Your task to perform on an android device: open chrome and create a bookmark for the current page Image 0: 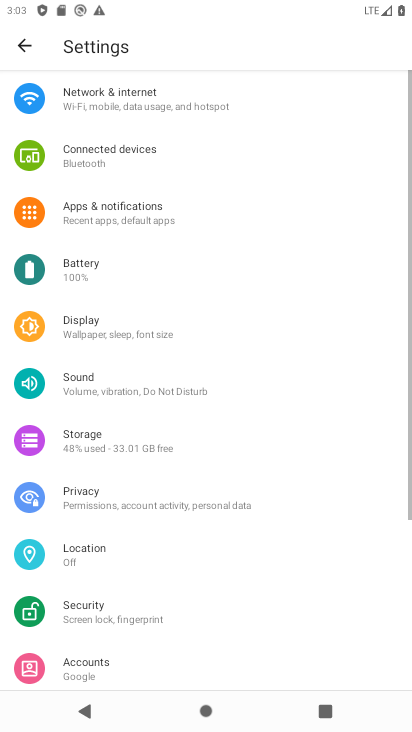
Step 0: press home button
Your task to perform on an android device: open chrome and create a bookmark for the current page Image 1: 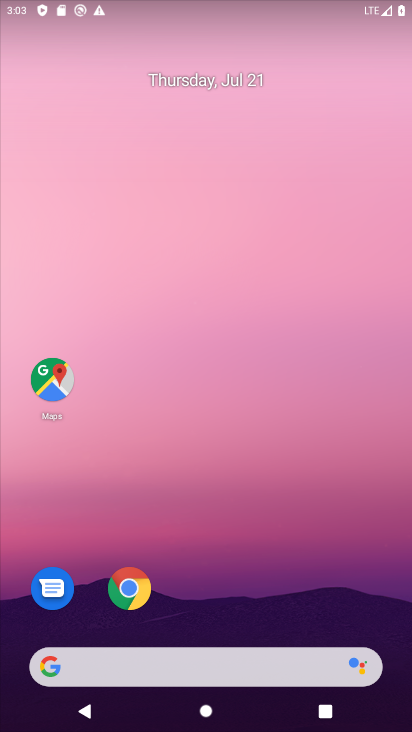
Step 1: click (120, 596)
Your task to perform on an android device: open chrome and create a bookmark for the current page Image 2: 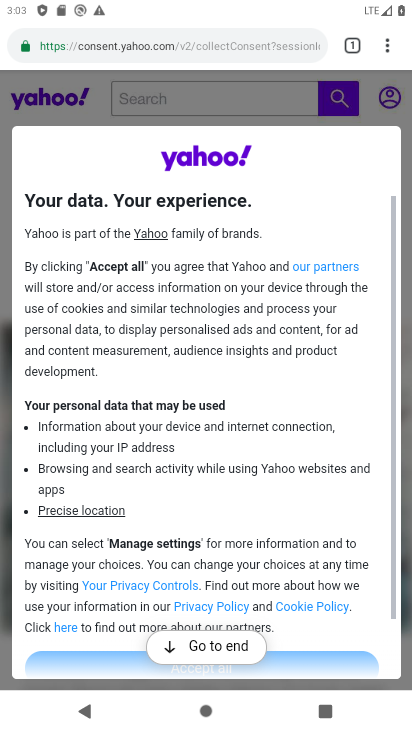
Step 2: click (393, 41)
Your task to perform on an android device: open chrome and create a bookmark for the current page Image 3: 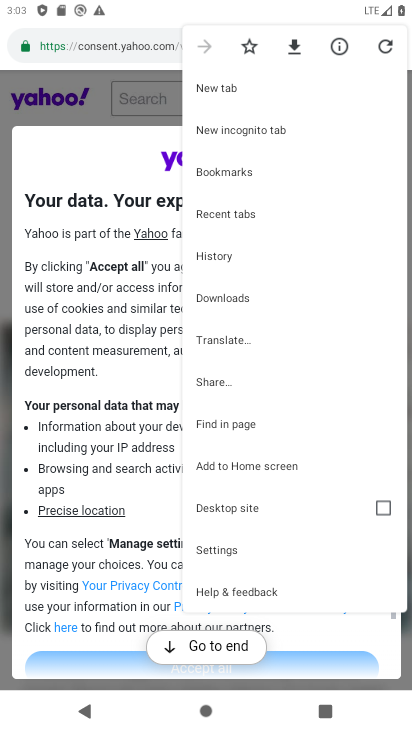
Step 3: click (258, 50)
Your task to perform on an android device: open chrome and create a bookmark for the current page Image 4: 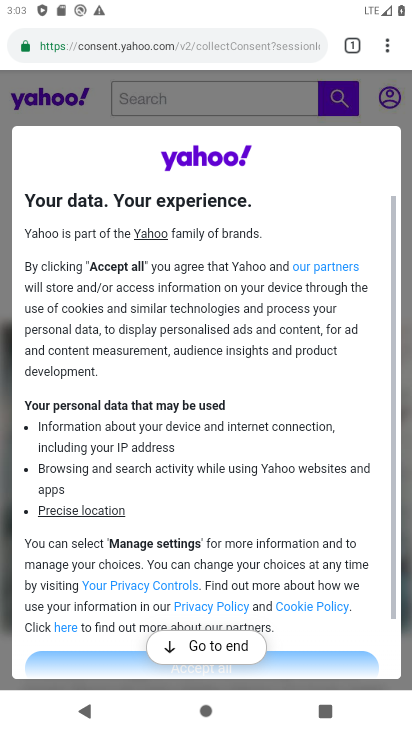
Step 4: task complete